Your task to perform on an android device: Open the calendar and show me this week's events? Image 0: 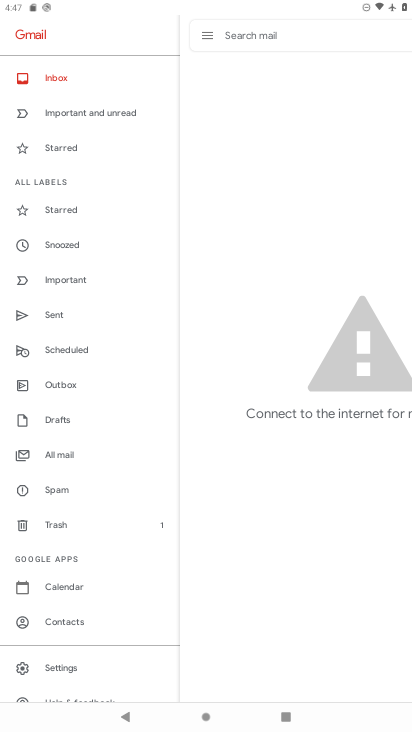
Step 0: press home button
Your task to perform on an android device: Open the calendar and show me this week's events? Image 1: 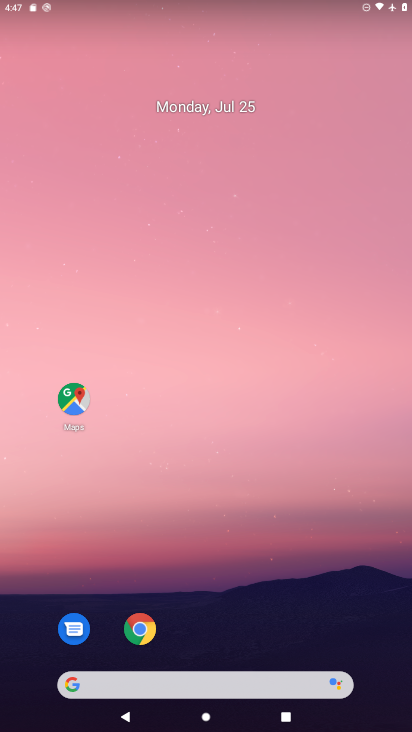
Step 1: drag from (224, 660) to (273, 92)
Your task to perform on an android device: Open the calendar and show me this week's events? Image 2: 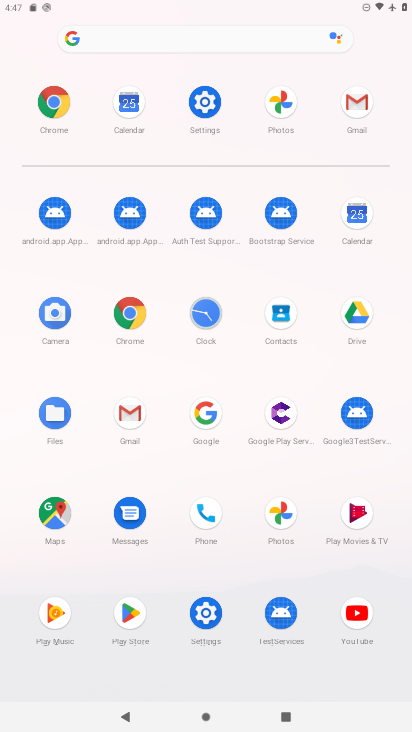
Step 2: click (362, 218)
Your task to perform on an android device: Open the calendar and show me this week's events? Image 3: 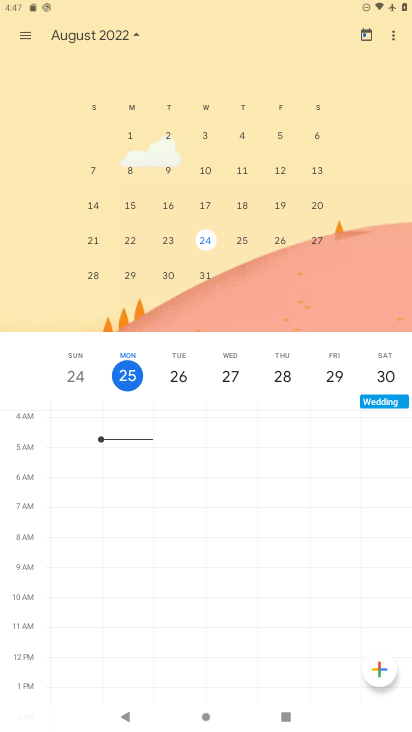
Step 3: drag from (75, 179) to (326, 188)
Your task to perform on an android device: Open the calendar and show me this week's events? Image 4: 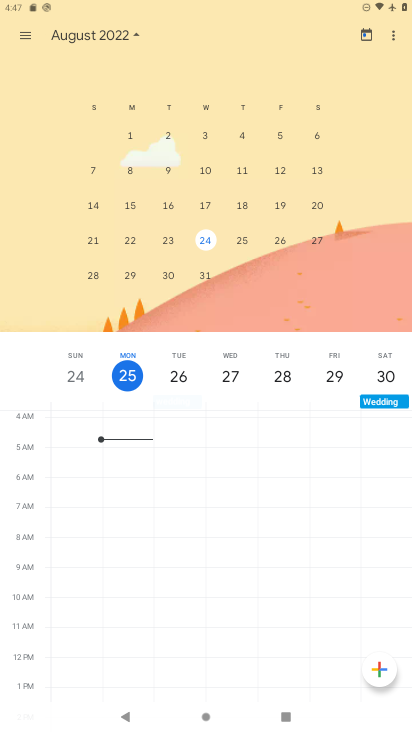
Step 4: click (205, 243)
Your task to perform on an android device: Open the calendar and show me this week's events? Image 5: 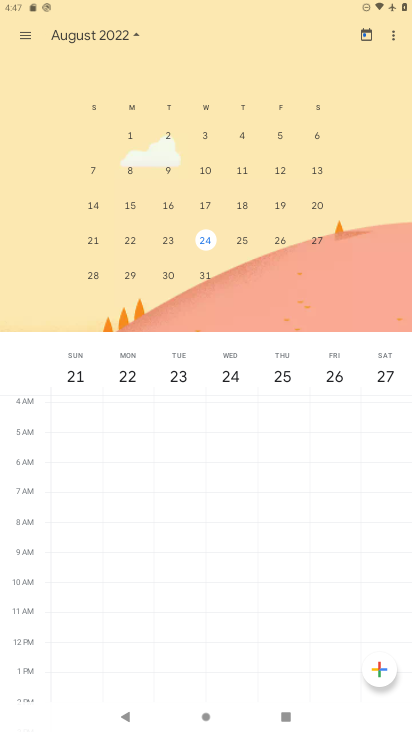
Step 5: task complete